Your task to perform on an android device: Go to ESPN.com Image 0: 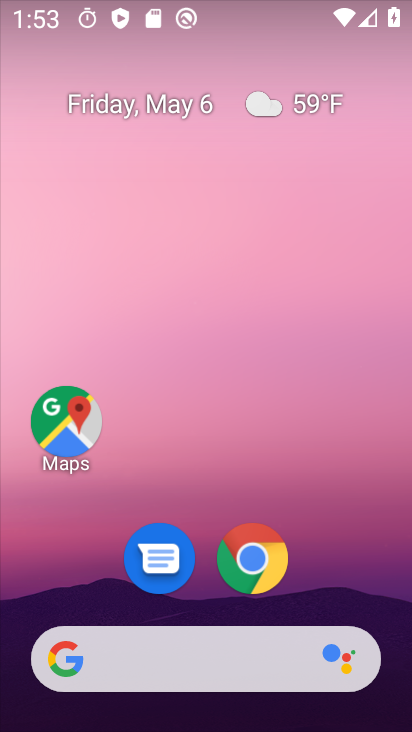
Step 0: click (258, 557)
Your task to perform on an android device: Go to ESPN.com Image 1: 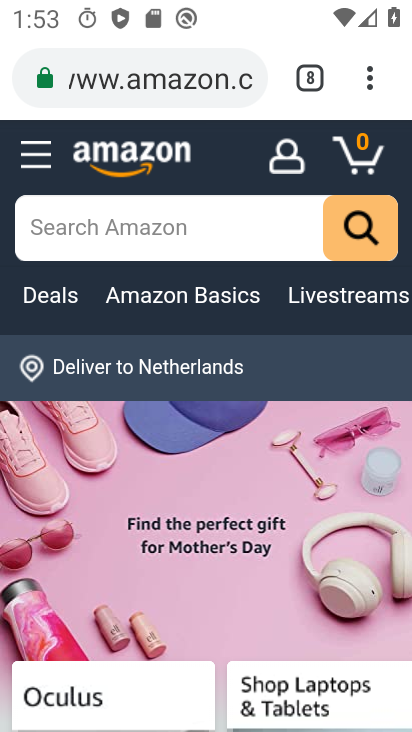
Step 1: drag from (371, 78) to (103, 141)
Your task to perform on an android device: Go to ESPN.com Image 2: 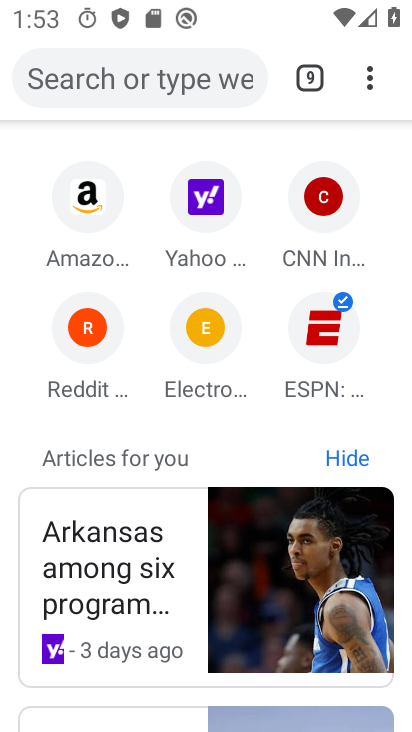
Step 2: click (319, 345)
Your task to perform on an android device: Go to ESPN.com Image 3: 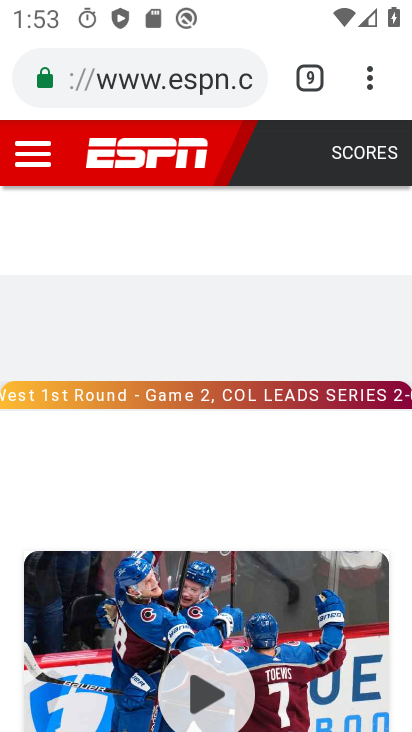
Step 3: task complete